Your task to perform on an android device: star an email in the gmail app Image 0: 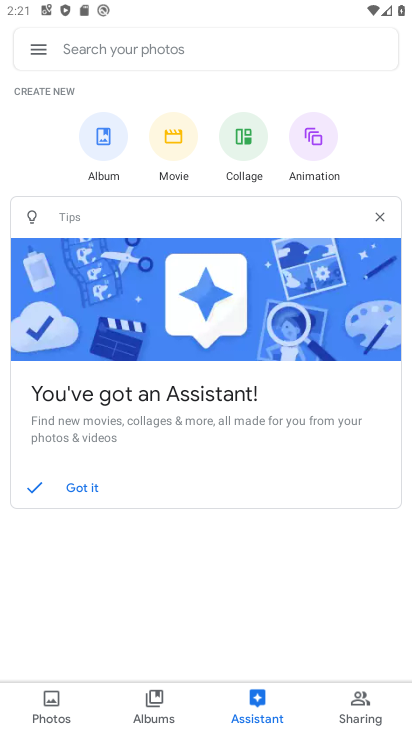
Step 0: press home button
Your task to perform on an android device: star an email in the gmail app Image 1: 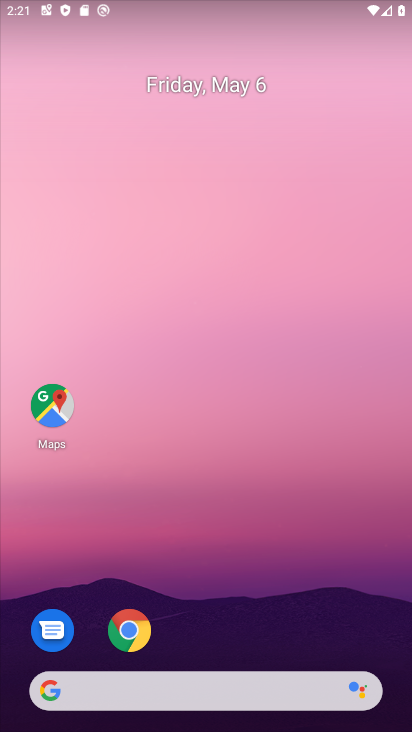
Step 1: drag from (159, 680) to (161, 212)
Your task to perform on an android device: star an email in the gmail app Image 2: 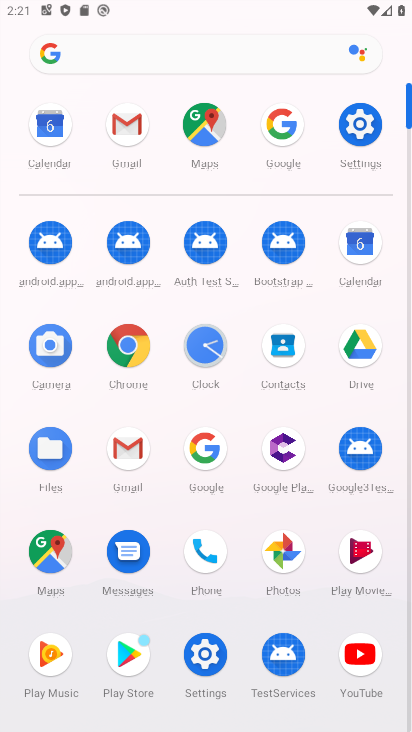
Step 2: click (133, 457)
Your task to perform on an android device: star an email in the gmail app Image 3: 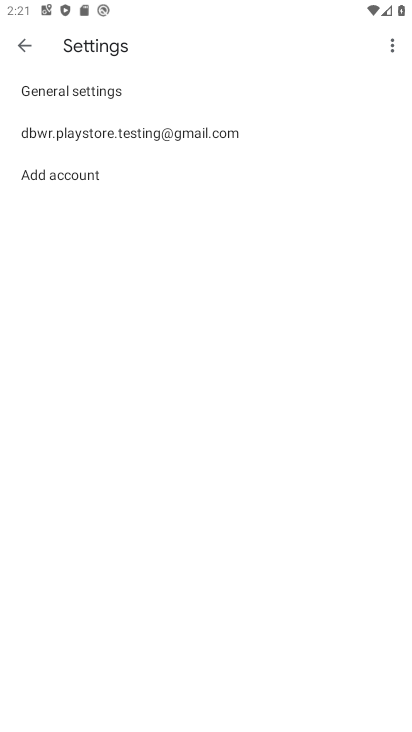
Step 3: click (18, 43)
Your task to perform on an android device: star an email in the gmail app Image 4: 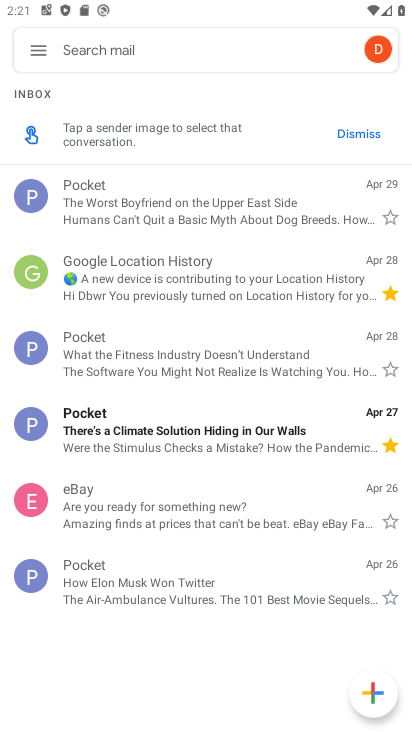
Step 4: click (35, 44)
Your task to perform on an android device: star an email in the gmail app Image 5: 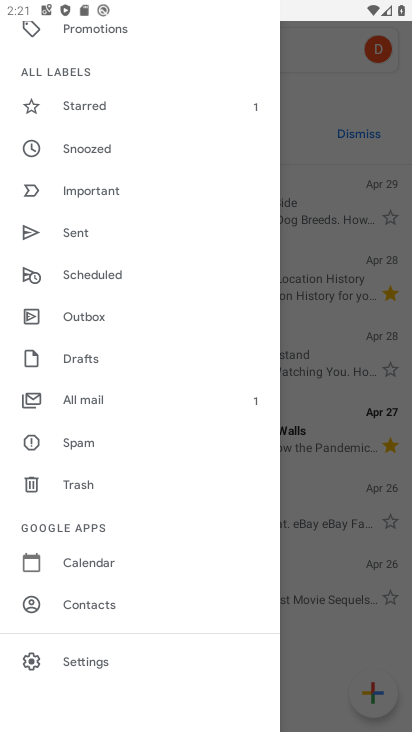
Step 5: click (108, 394)
Your task to perform on an android device: star an email in the gmail app Image 6: 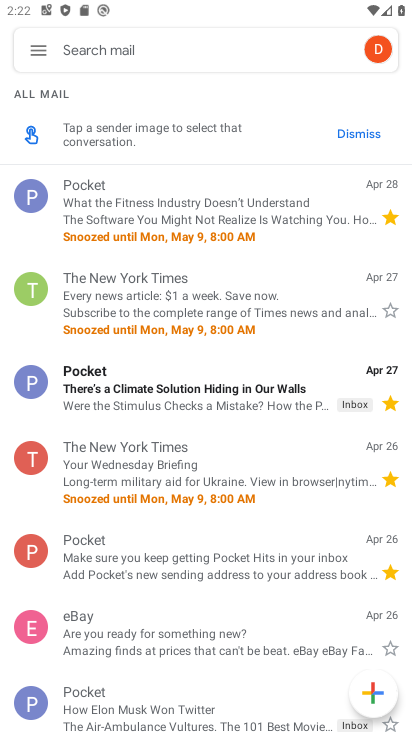
Step 6: click (389, 316)
Your task to perform on an android device: star an email in the gmail app Image 7: 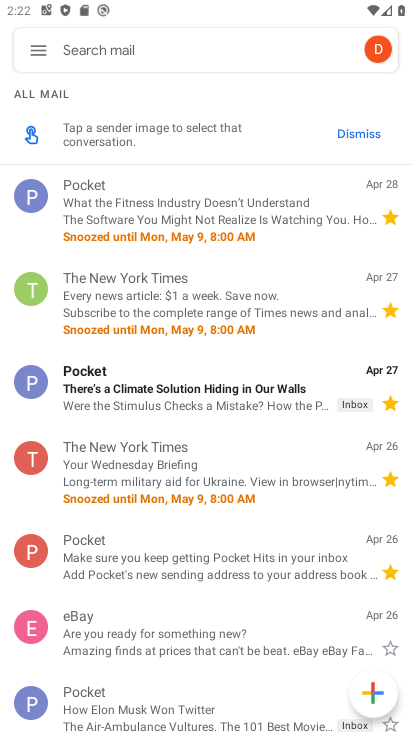
Step 7: task complete